Your task to perform on an android device: Open accessibility settings Image 0: 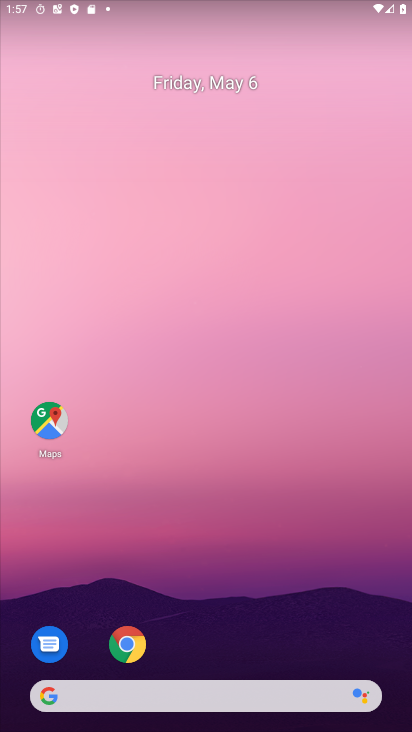
Step 0: drag from (233, 722) to (242, 146)
Your task to perform on an android device: Open accessibility settings Image 1: 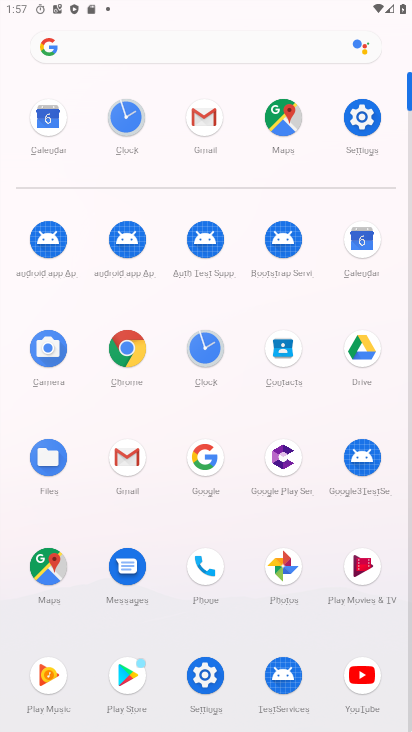
Step 1: click (356, 127)
Your task to perform on an android device: Open accessibility settings Image 2: 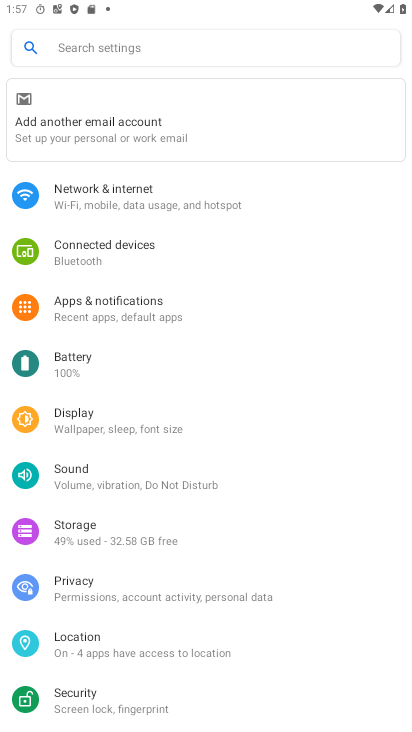
Step 2: drag from (142, 686) to (244, 108)
Your task to perform on an android device: Open accessibility settings Image 3: 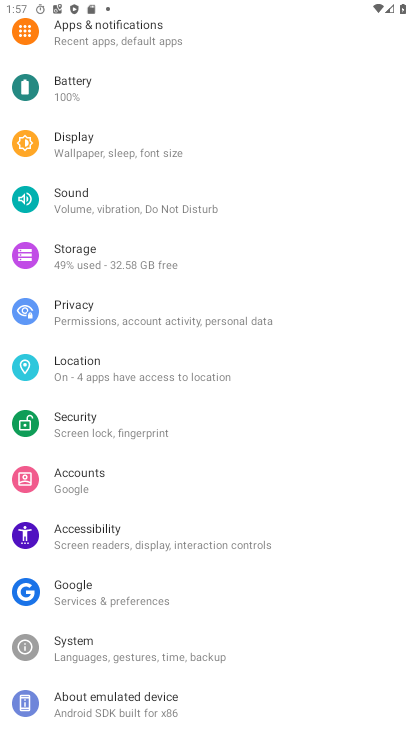
Step 3: click (178, 546)
Your task to perform on an android device: Open accessibility settings Image 4: 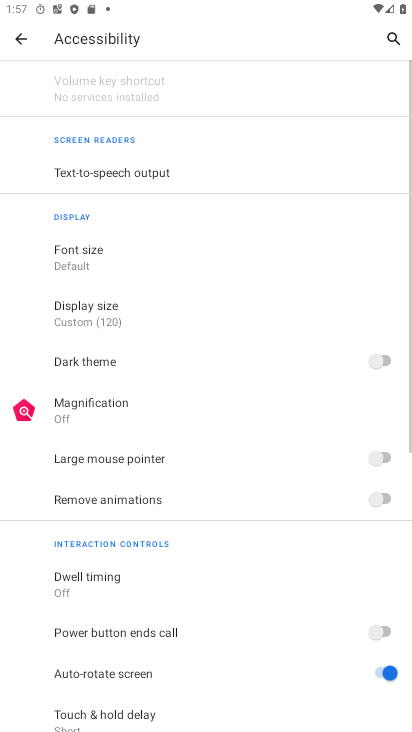
Step 4: task complete